Your task to perform on an android device: open a new tab in the chrome app Image 0: 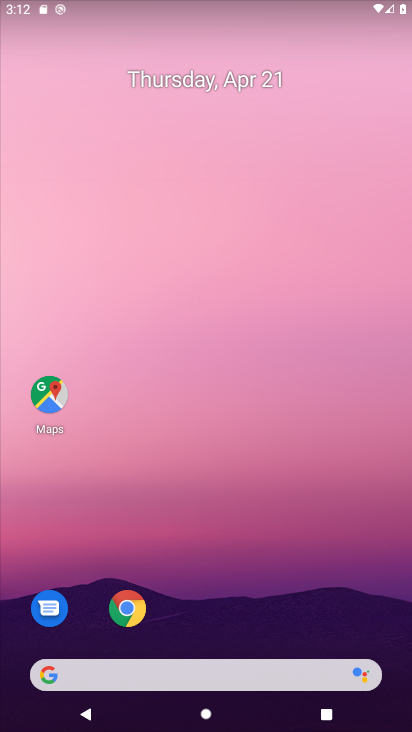
Step 0: drag from (299, 556) to (257, 20)
Your task to perform on an android device: open a new tab in the chrome app Image 1: 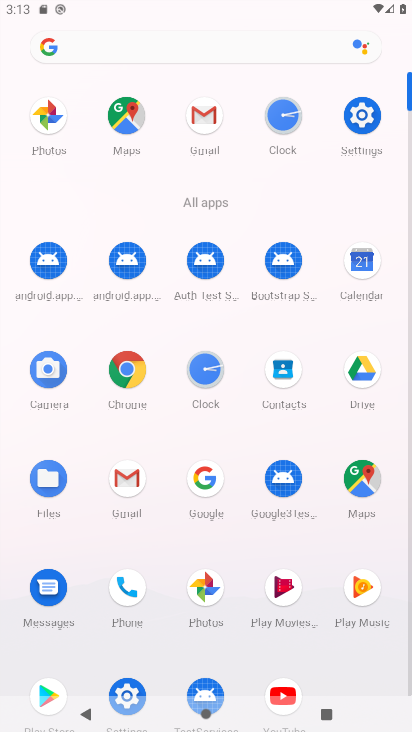
Step 1: click (130, 353)
Your task to perform on an android device: open a new tab in the chrome app Image 2: 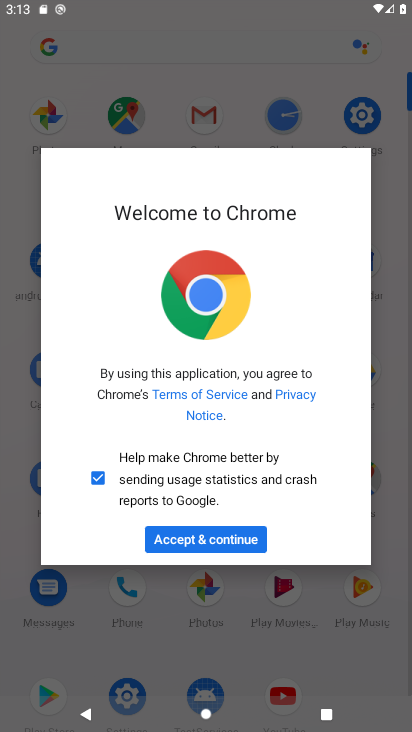
Step 2: click (208, 530)
Your task to perform on an android device: open a new tab in the chrome app Image 3: 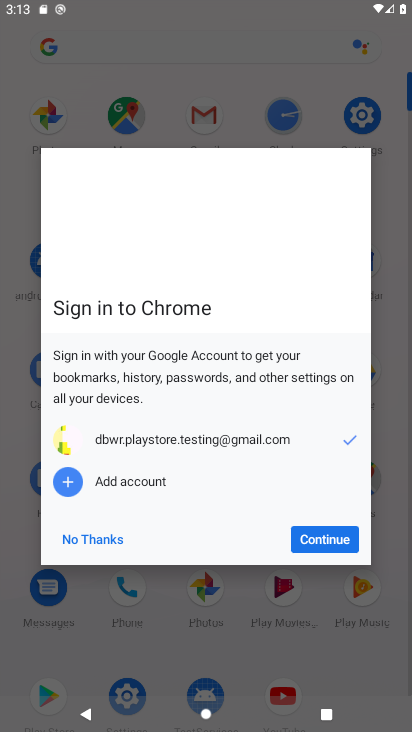
Step 3: click (304, 540)
Your task to perform on an android device: open a new tab in the chrome app Image 4: 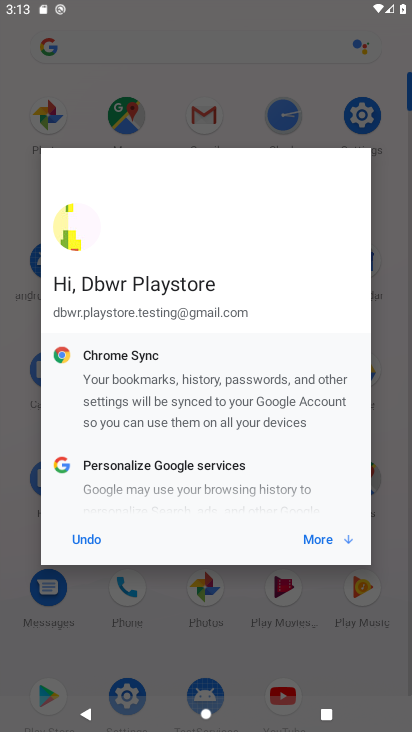
Step 4: click (307, 537)
Your task to perform on an android device: open a new tab in the chrome app Image 5: 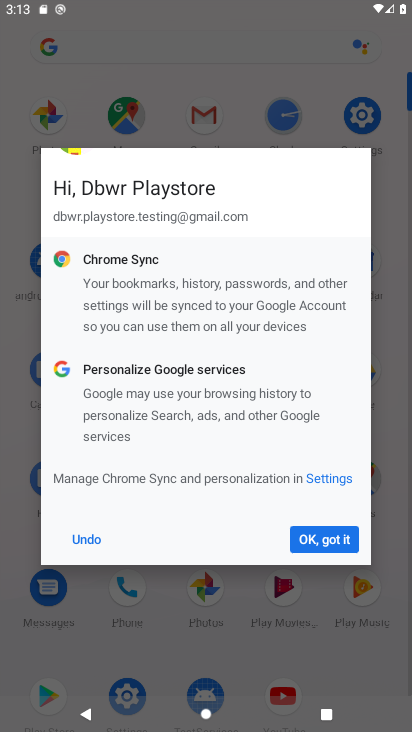
Step 5: click (307, 537)
Your task to perform on an android device: open a new tab in the chrome app Image 6: 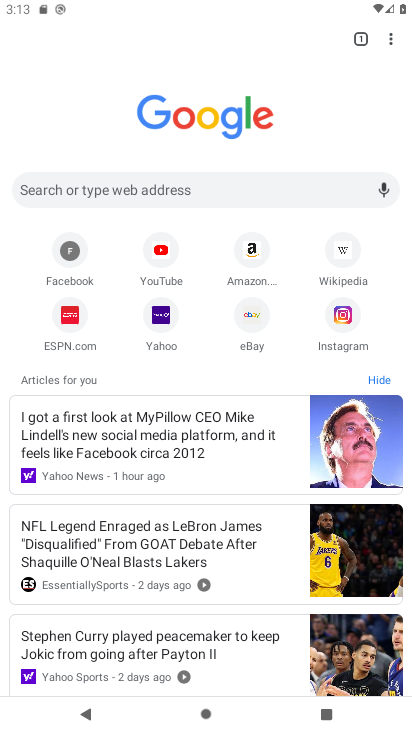
Step 6: task complete